Your task to perform on an android device: Open Amazon Image 0: 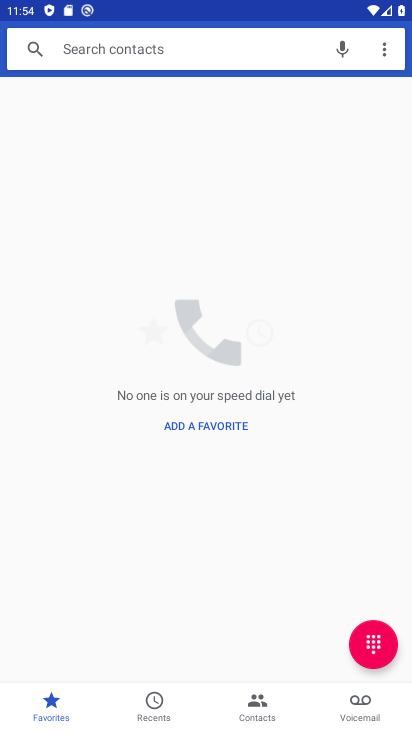
Step 0: drag from (367, 636) to (373, 315)
Your task to perform on an android device: Open Amazon Image 1: 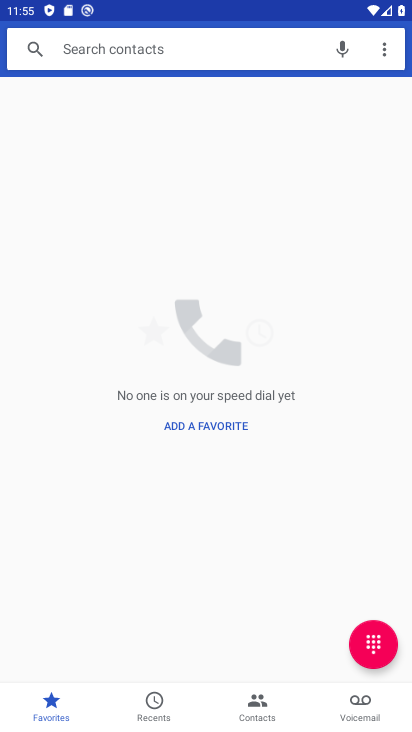
Step 1: press home button
Your task to perform on an android device: Open Amazon Image 2: 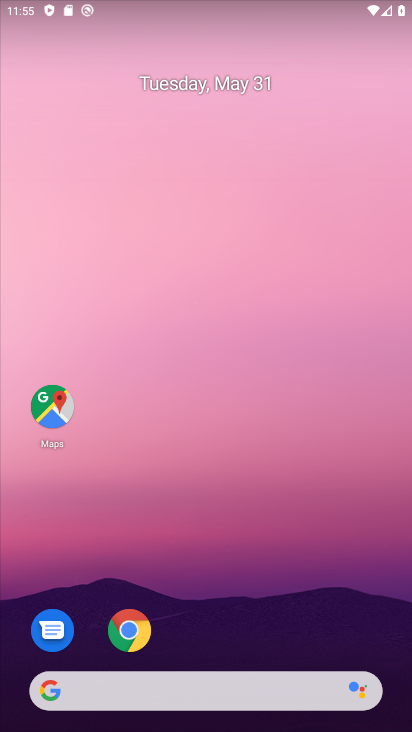
Step 2: drag from (345, 610) to (333, 219)
Your task to perform on an android device: Open Amazon Image 3: 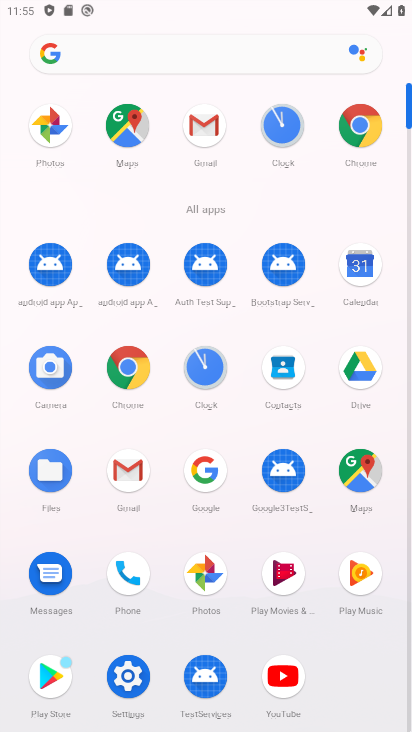
Step 3: click (131, 381)
Your task to perform on an android device: Open Amazon Image 4: 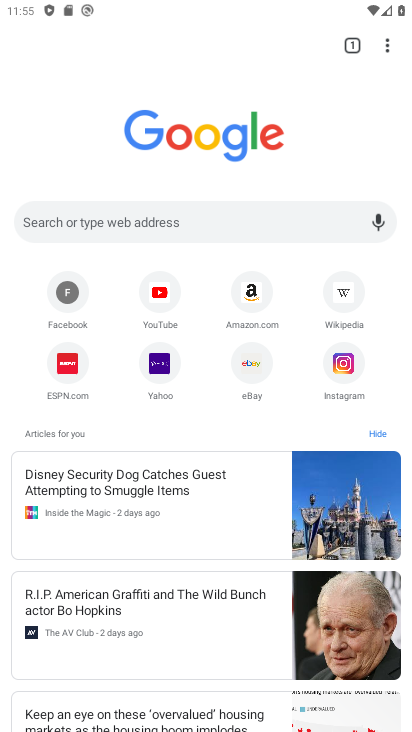
Step 4: click (281, 222)
Your task to perform on an android device: Open Amazon Image 5: 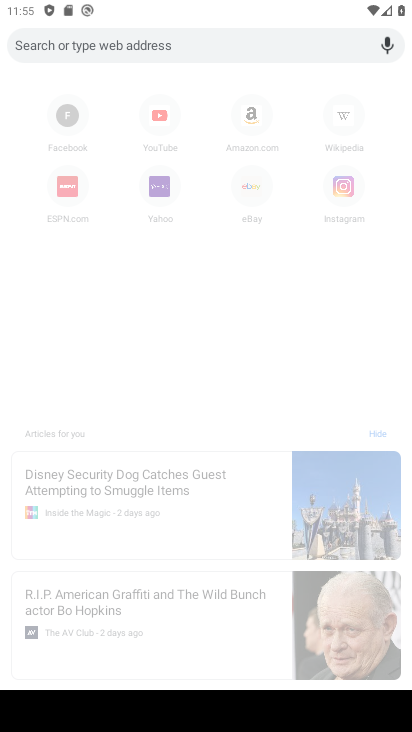
Step 5: type "amazon"
Your task to perform on an android device: Open Amazon Image 6: 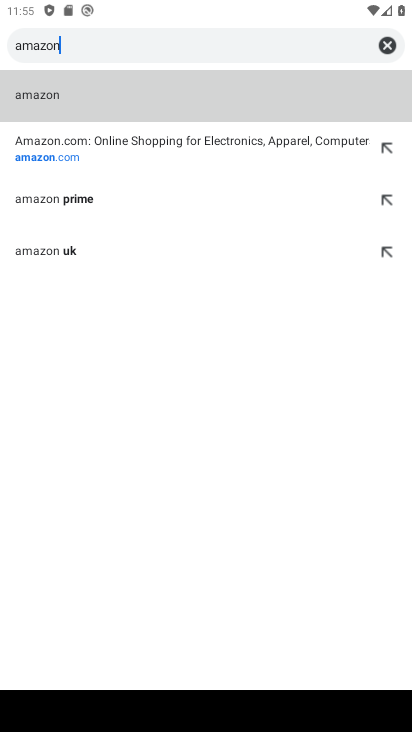
Step 6: click (138, 104)
Your task to perform on an android device: Open Amazon Image 7: 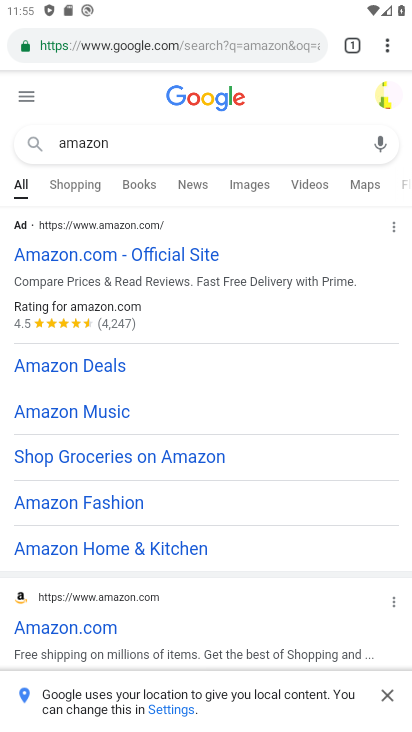
Step 7: task complete